Your task to perform on an android device: turn on priority inbox in the gmail app Image 0: 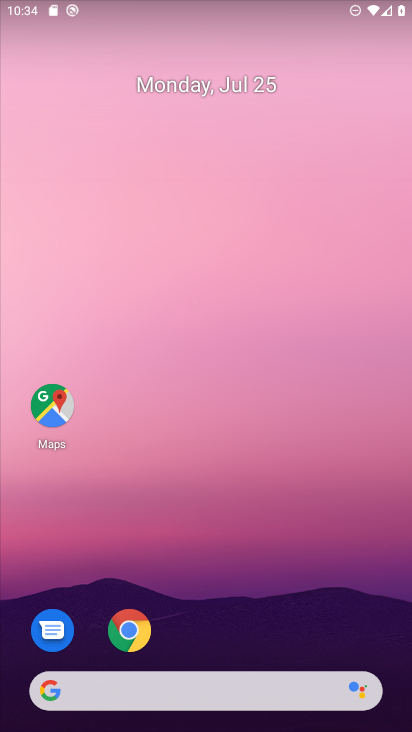
Step 0: click (213, 107)
Your task to perform on an android device: turn on priority inbox in the gmail app Image 1: 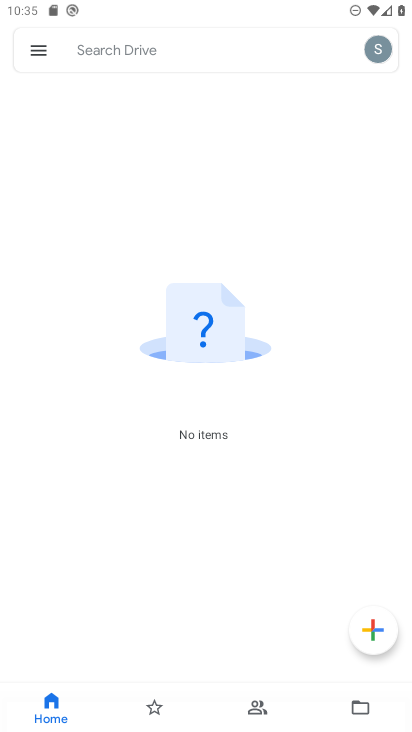
Step 1: press home button
Your task to perform on an android device: turn on priority inbox in the gmail app Image 2: 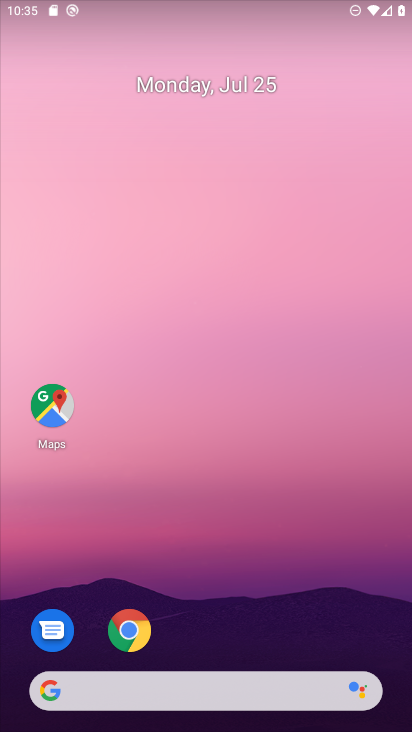
Step 2: drag from (321, 625) to (211, 72)
Your task to perform on an android device: turn on priority inbox in the gmail app Image 3: 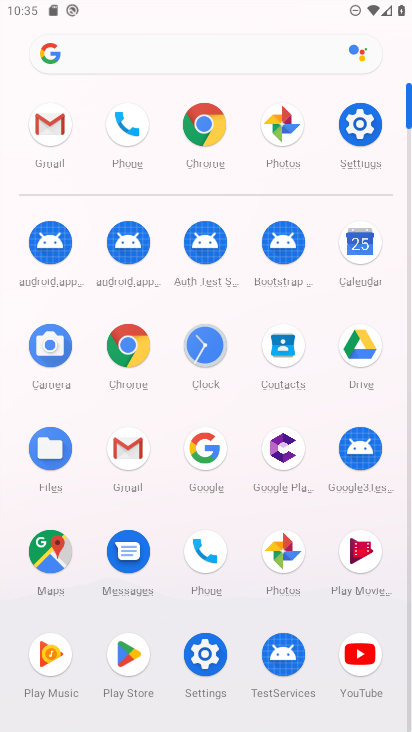
Step 3: click (56, 117)
Your task to perform on an android device: turn on priority inbox in the gmail app Image 4: 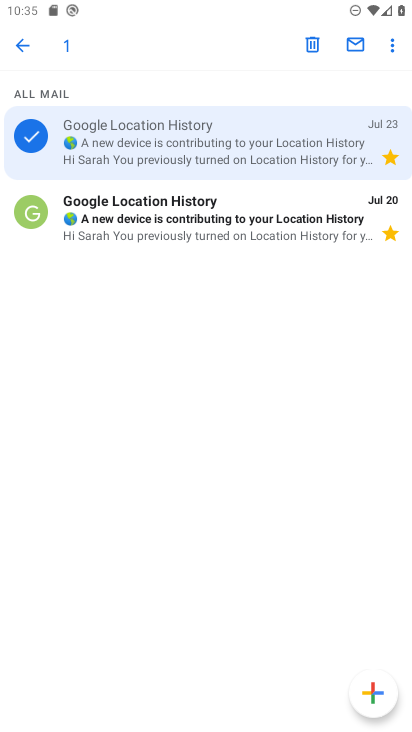
Step 4: click (21, 40)
Your task to perform on an android device: turn on priority inbox in the gmail app Image 5: 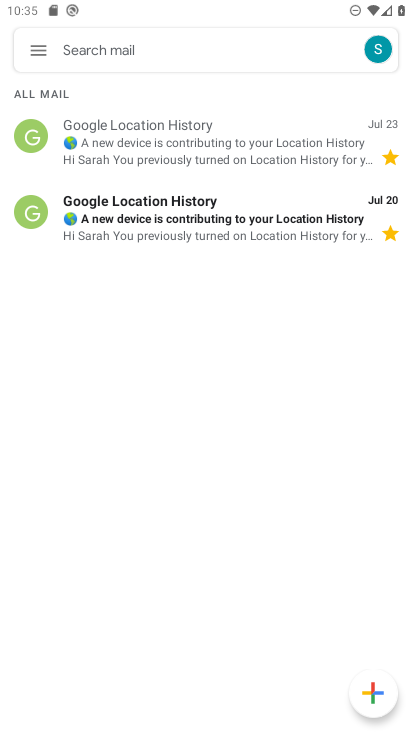
Step 5: click (30, 42)
Your task to perform on an android device: turn on priority inbox in the gmail app Image 6: 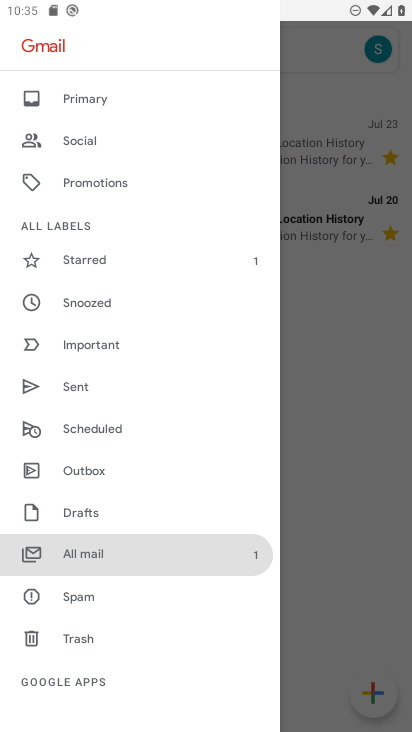
Step 6: drag from (152, 670) to (203, 191)
Your task to perform on an android device: turn on priority inbox in the gmail app Image 7: 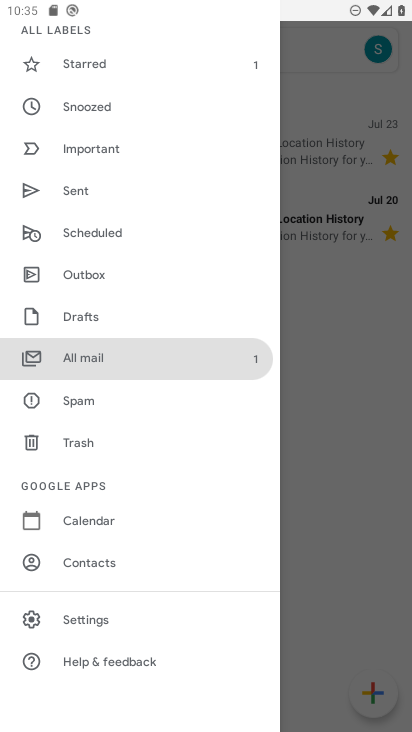
Step 7: click (102, 622)
Your task to perform on an android device: turn on priority inbox in the gmail app Image 8: 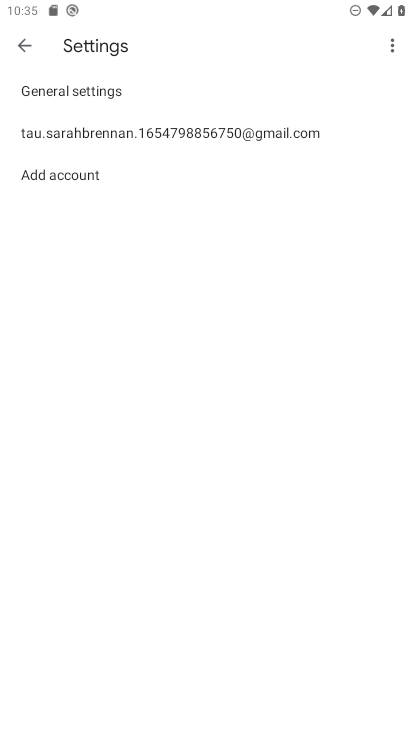
Step 8: click (178, 134)
Your task to perform on an android device: turn on priority inbox in the gmail app Image 9: 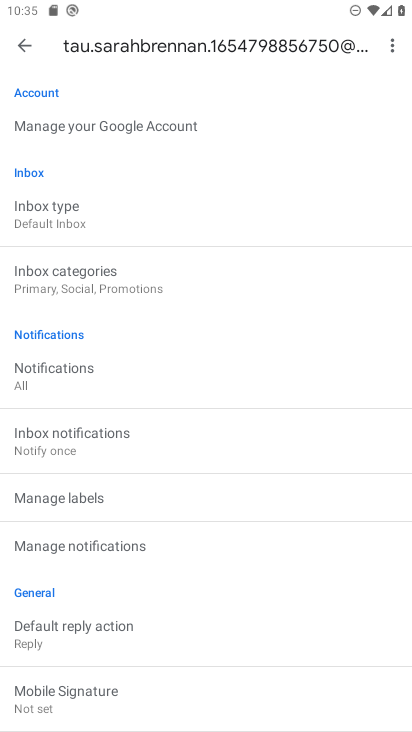
Step 9: click (74, 225)
Your task to perform on an android device: turn on priority inbox in the gmail app Image 10: 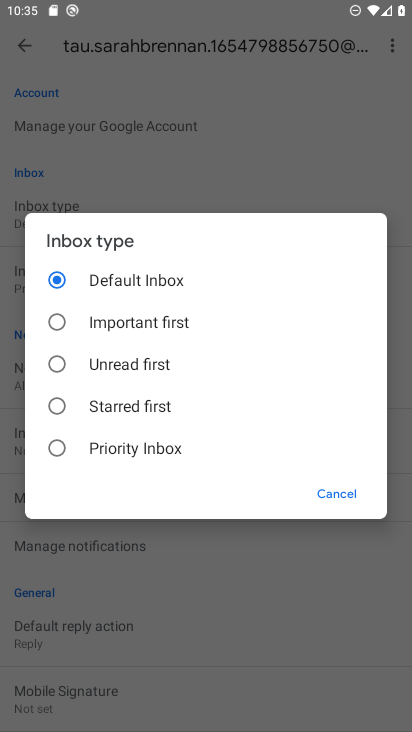
Step 10: task complete